Your task to perform on an android device: Open Reddit.com Image 0: 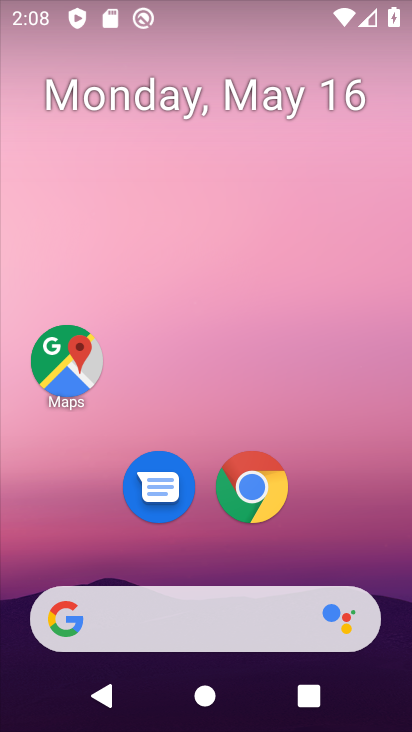
Step 0: click (252, 487)
Your task to perform on an android device: Open Reddit.com Image 1: 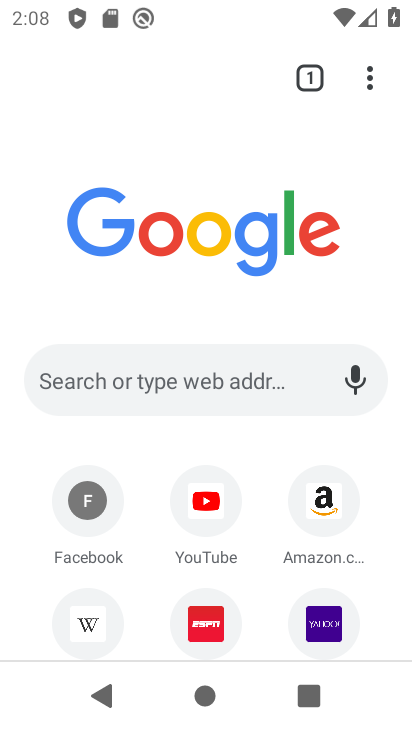
Step 1: click (202, 391)
Your task to perform on an android device: Open Reddit.com Image 2: 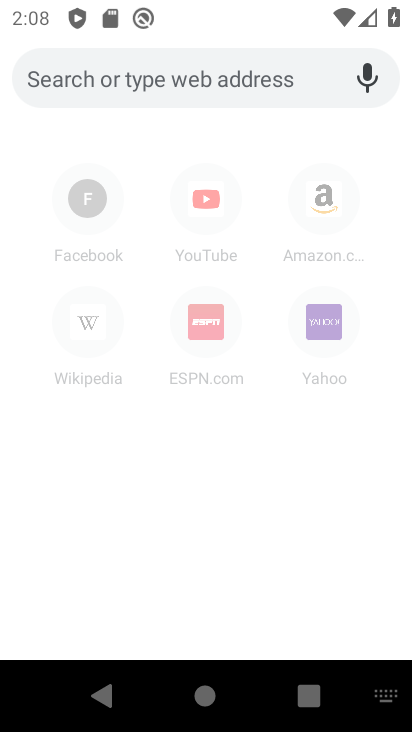
Step 2: type "Reddit.com"
Your task to perform on an android device: Open Reddit.com Image 3: 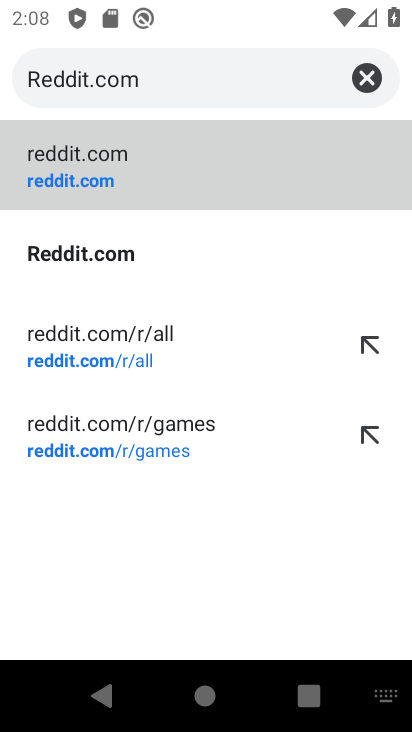
Step 3: click (129, 255)
Your task to perform on an android device: Open Reddit.com Image 4: 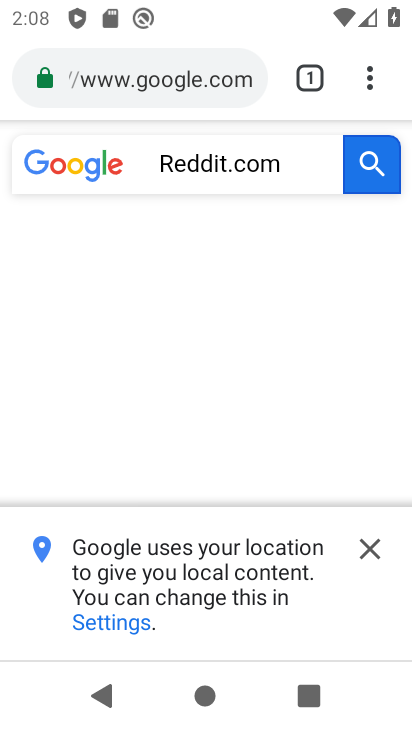
Step 4: click (368, 546)
Your task to perform on an android device: Open Reddit.com Image 5: 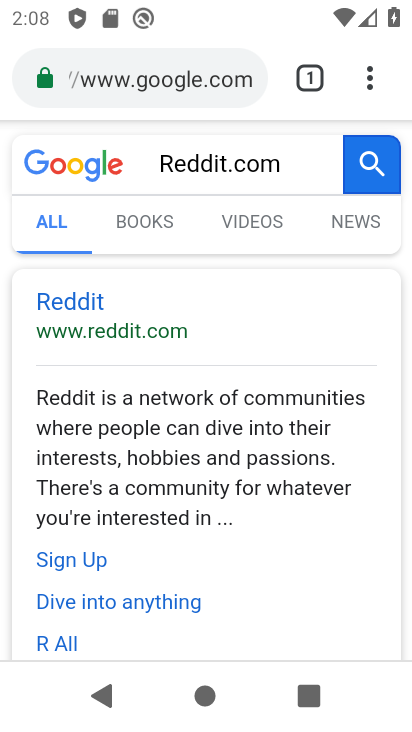
Step 5: click (103, 336)
Your task to perform on an android device: Open Reddit.com Image 6: 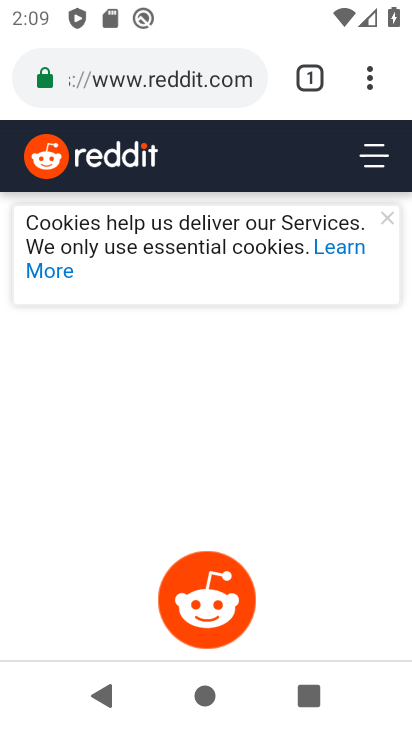
Step 6: task complete